Your task to perform on an android device: turn on bluetooth scan Image 0: 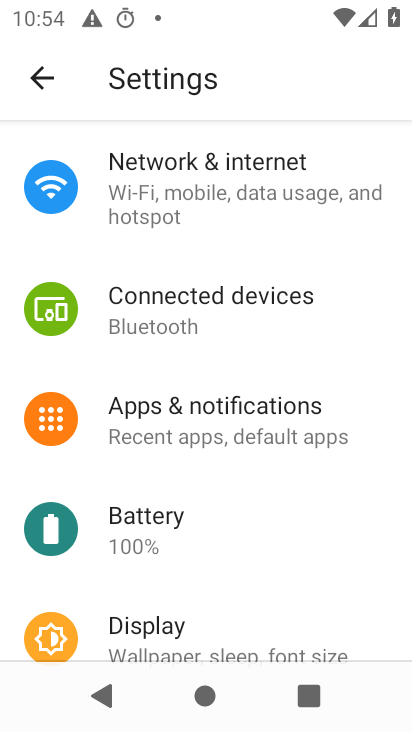
Step 0: click (214, 329)
Your task to perform on an android device: turn on bluetooth scan Image 1: 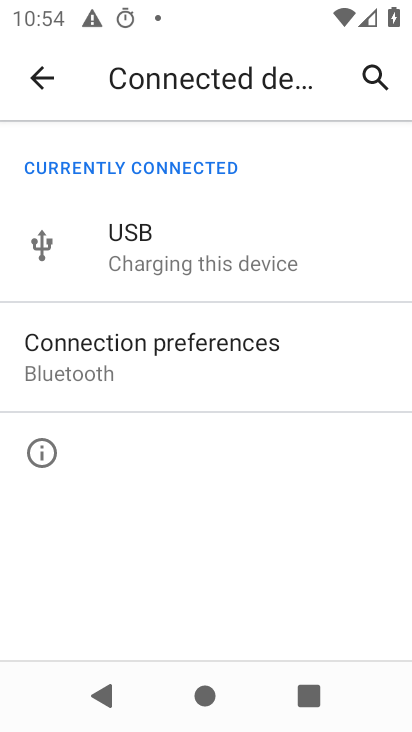
Step 1: click (129, 359)
Your task to perform on an android device: turn on bluetooth scan Image 2: 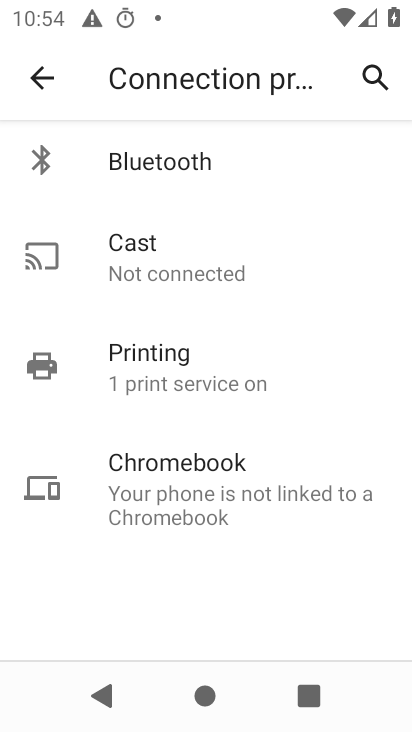
Step 2: click (222, 154)
Your task to perform on an android device: turn on bluetooth scan Image 3: 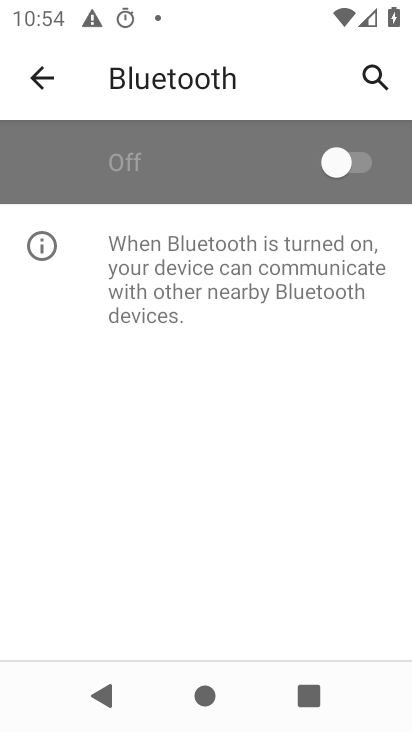
Step 3: click (351, 156)
Your task to perform on an android device: turn on bluetooth scan Image 4: 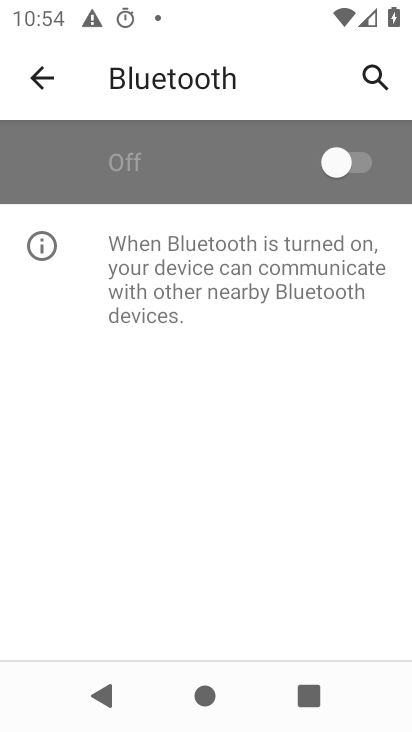
Step 4: task complete